Your task to perform on an android device: What's on my calendar tomorrow? Image 0: 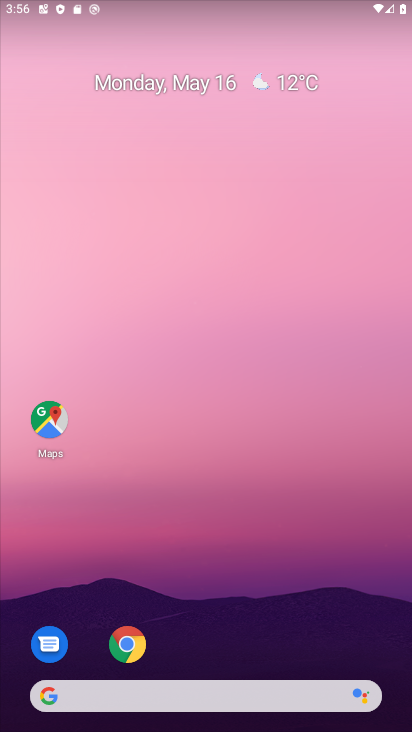
Step 0: drag from (226, 637) to (248, 124)
Your task to perform on an android device: What's on my calendar tomorrow? Image 1: 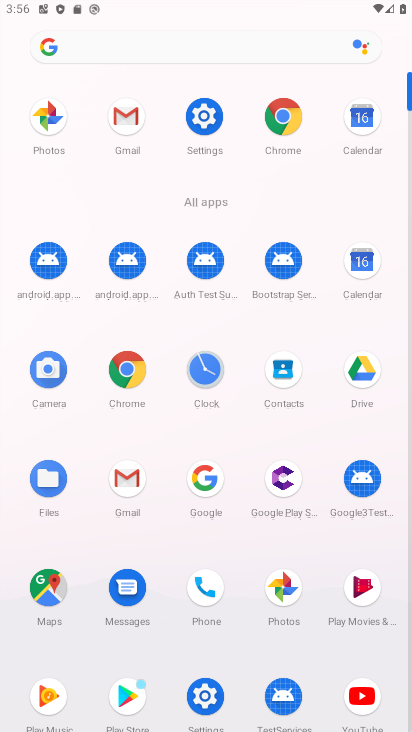
Step 1: click (357, 261)
Your task to perform on an android device: What's on my calendar tomorrow? Image 2: 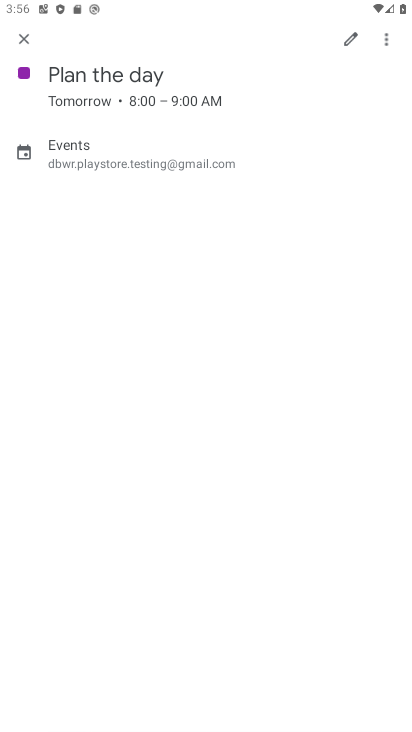
Step 2: click (15, 39)
Your task to perform on an android device: What's on my calendar tomorrow? Image 3: 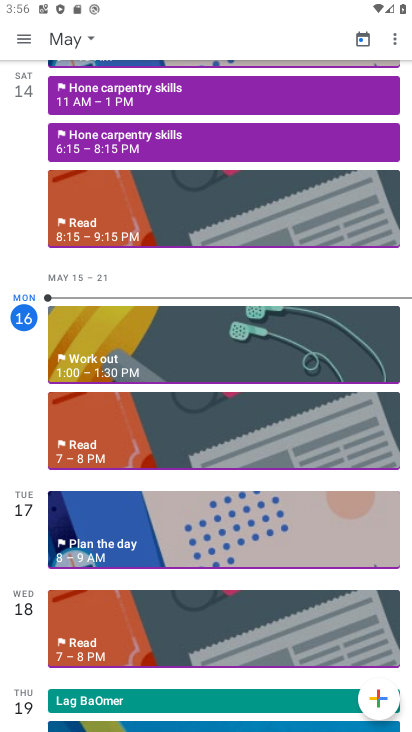
Step 3: click (124, 531)
Your task to perform on an android device: What's on my calendar tomorrow? Image 4: 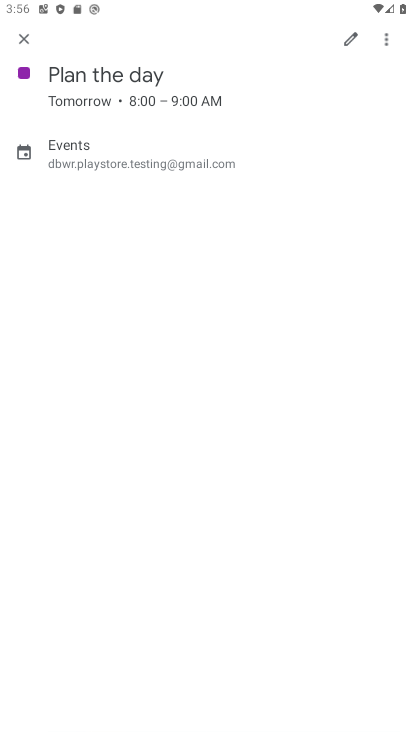
Step 4: task complete